Your task to perform on an android device: delete browsing data in the chrome app Image 0: 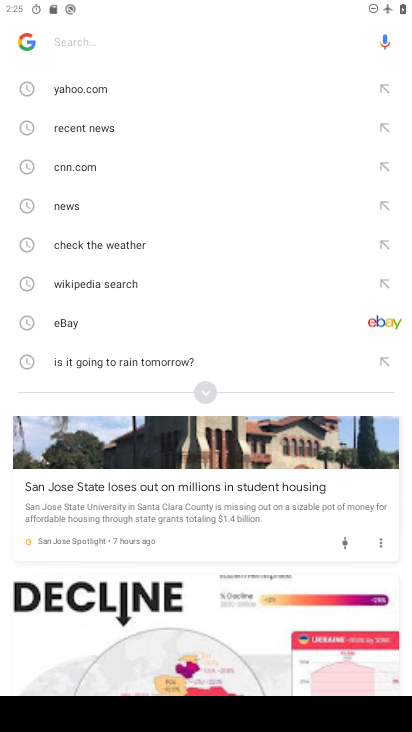
Step 0: press home button
Your task to perform on an android device: delete browsing data in the chrome app Image 1: 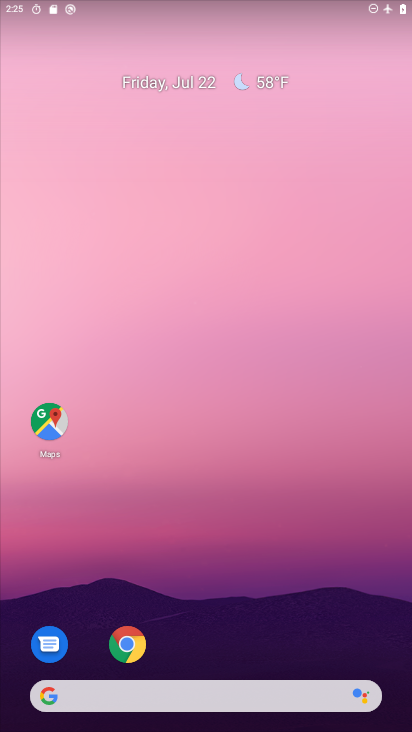
Step 1: click (122, 650)
Your task to perform on an android device: delete browsing data in the chrome app Image 2: 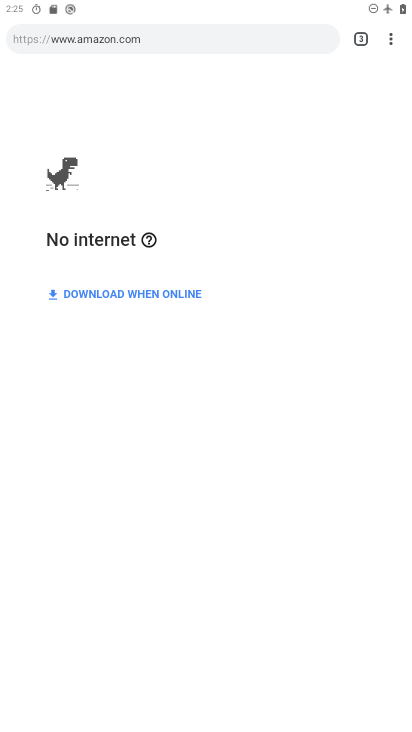
Step 2: click (390, 38)
Your task to perform on an android device: delete browsing data in the chrome app Image 3: 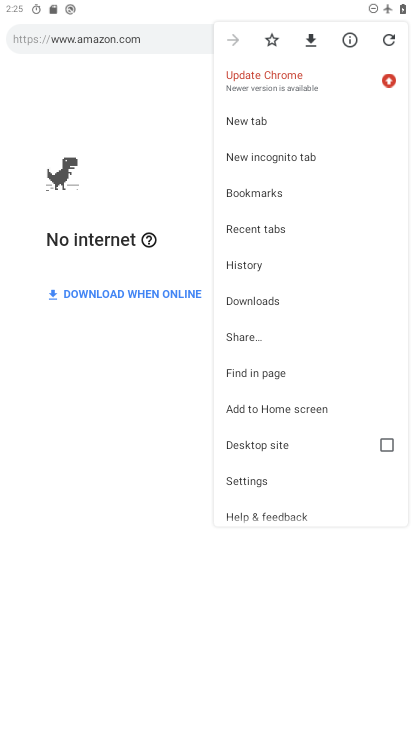
Step 3: click (259, 272)
Your task to perform on an android device: delete browsing data in the chrome app Image 4: 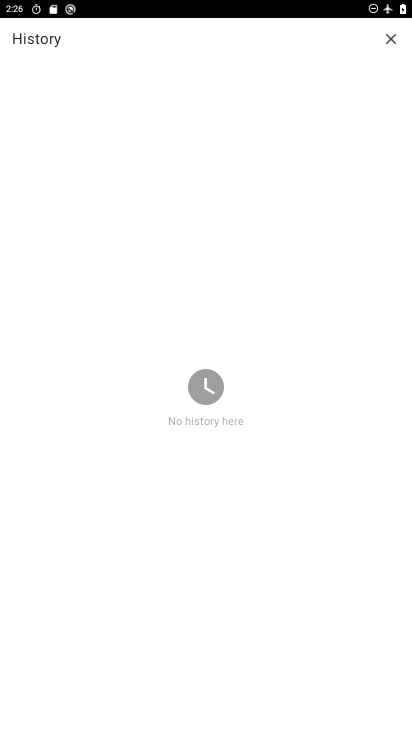
Step 4: task complete